Your task to perform on an android device: Search for the best selling book on Amazon. Image 0: 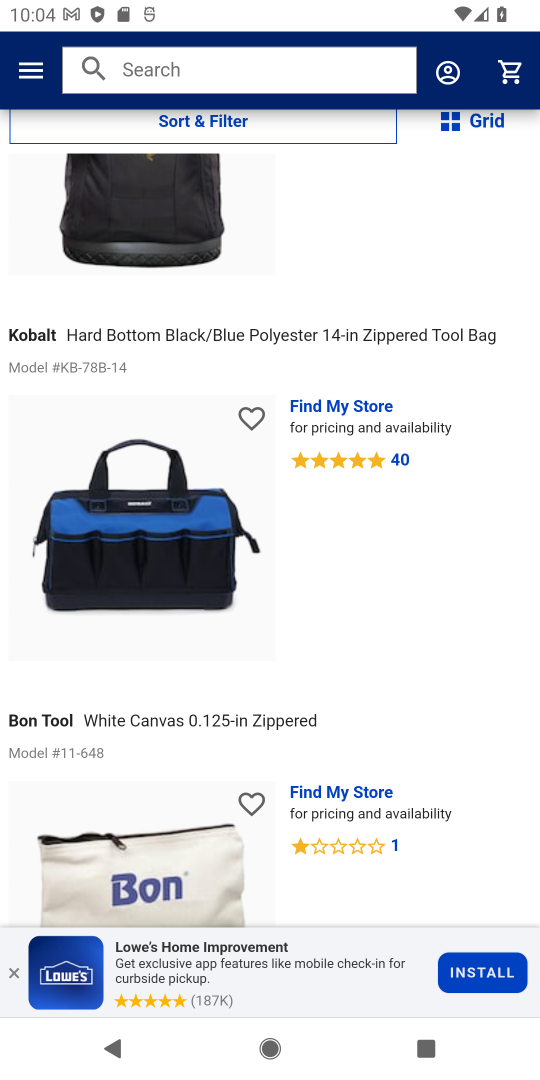
Step 0: press home button
Your task to perform on an android device: Search for the best selling book on Amazon. Image 1: 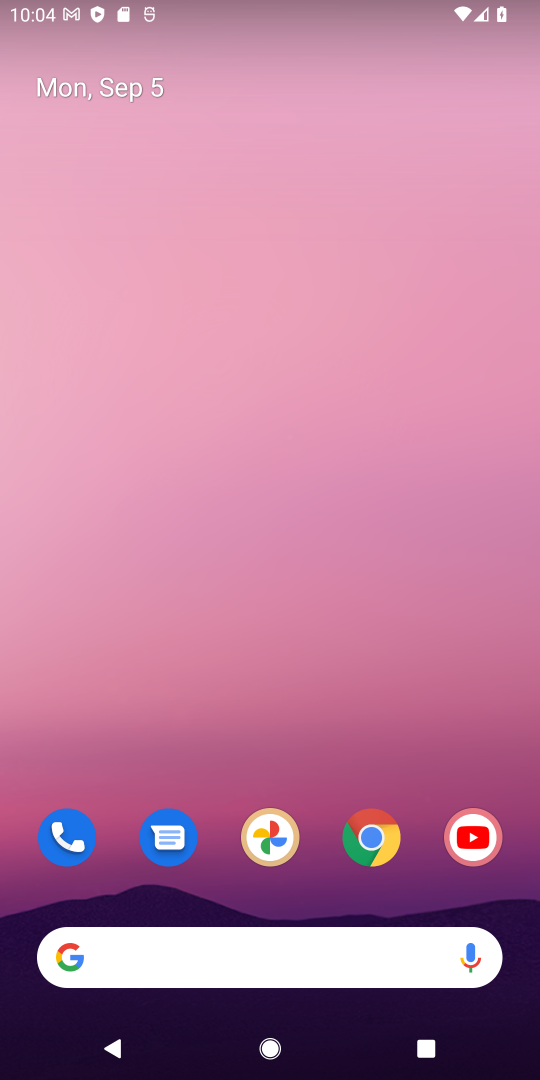
Step 1: drag from (340, 663) to (381, 69)
Your task to perform on an android device: Search for the best selling book on Amazon. Image 2: 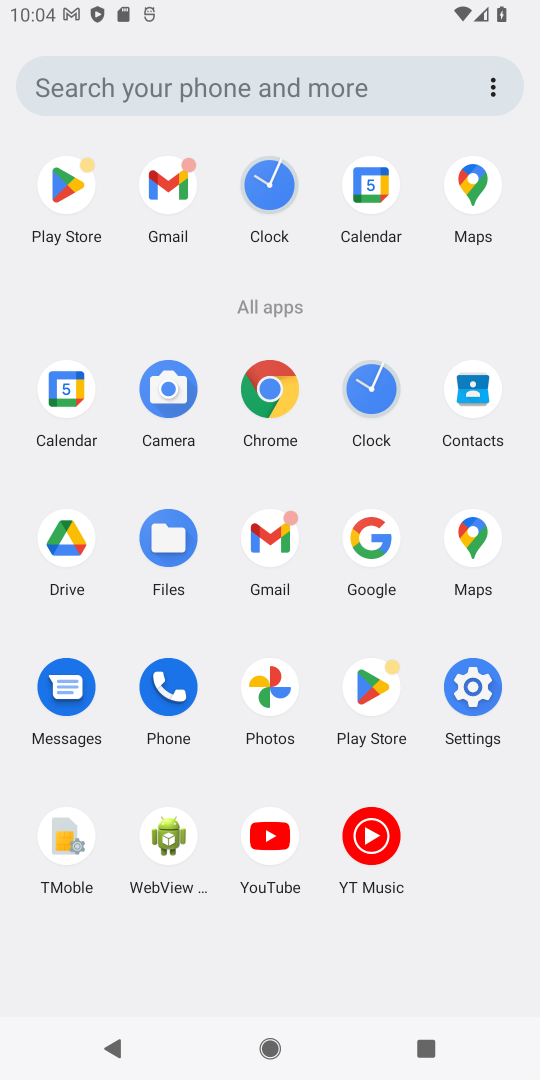
Step 2: click (268, 381)
Your task to perform on an android device: Search for the best selling book on Amazon. Image 3: 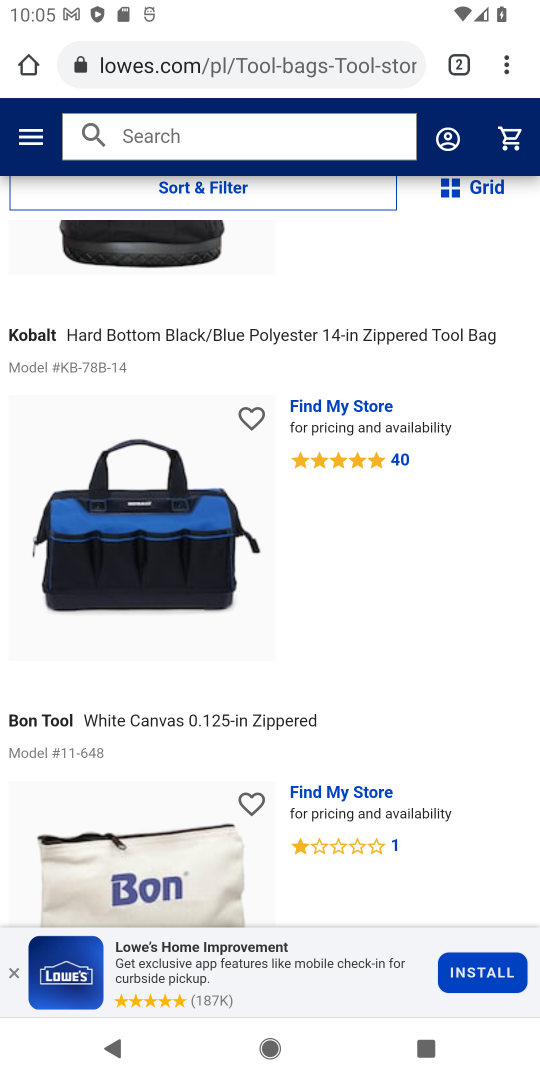
Step 3: click (454, 62)
Your task to perform on an android device: Search for the best selling book on Amazon. Image 4: 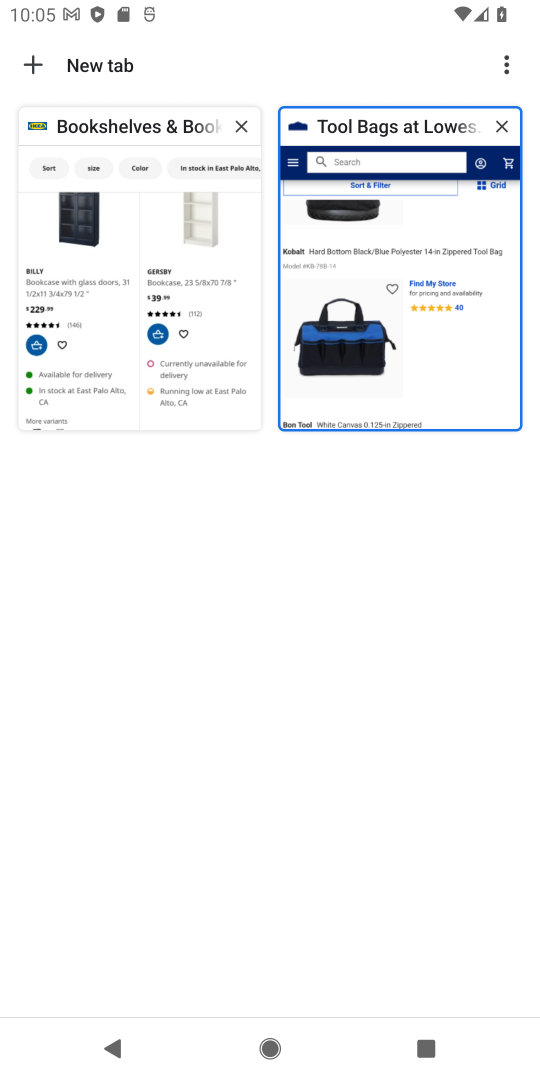
Step 4: click (502, 124)
Your task to perform on an android device: Search for the best selling book on Amazon. Image 5: 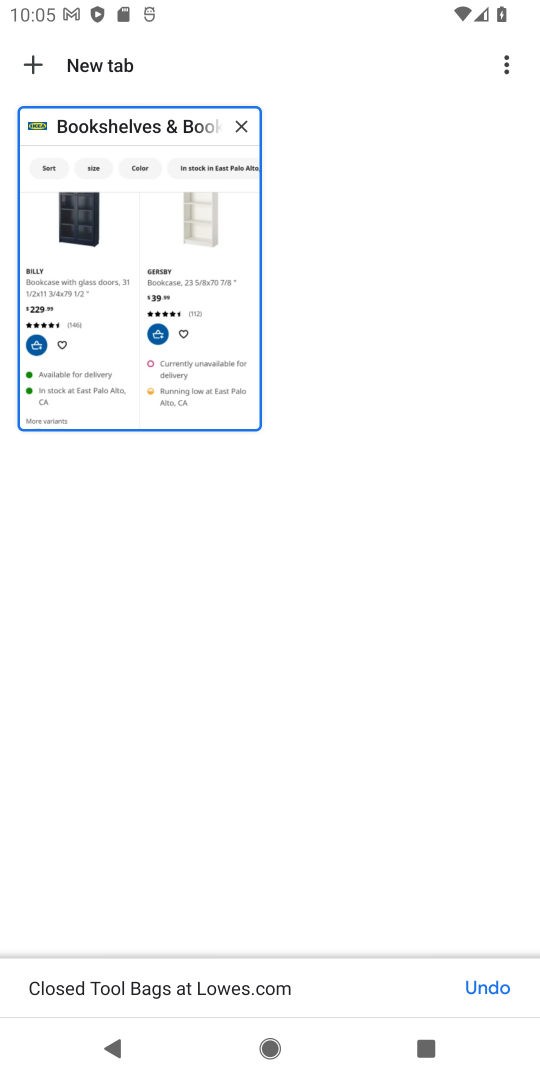
Step 5: click (31, 57)
Your task to perform on an android device: Search for the best selling book on Amazon. Image 6: 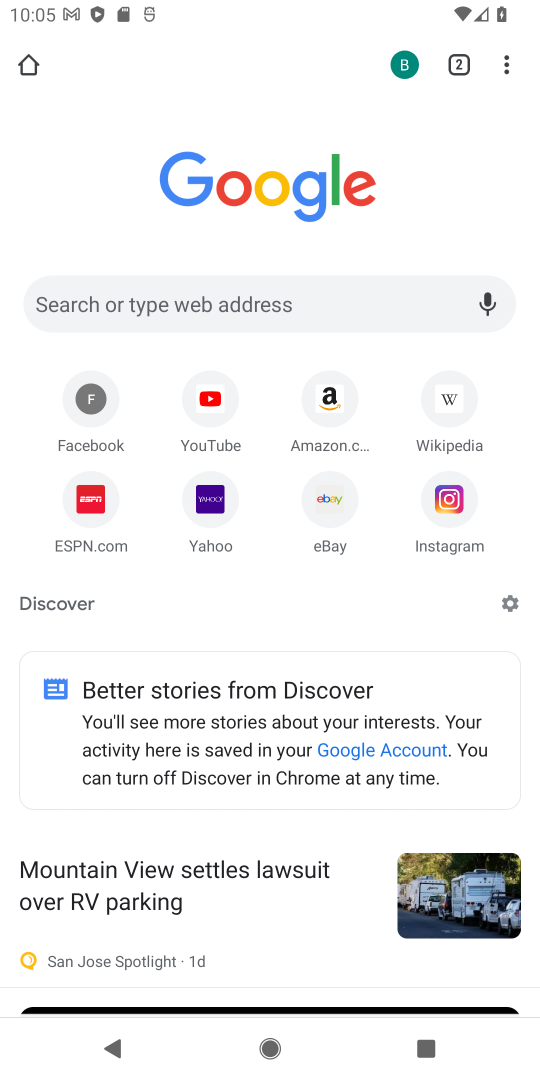
Step 6: click (197, 301)
Your task to perform on an android device: Search for the best selling book on Amazon. Image 7: 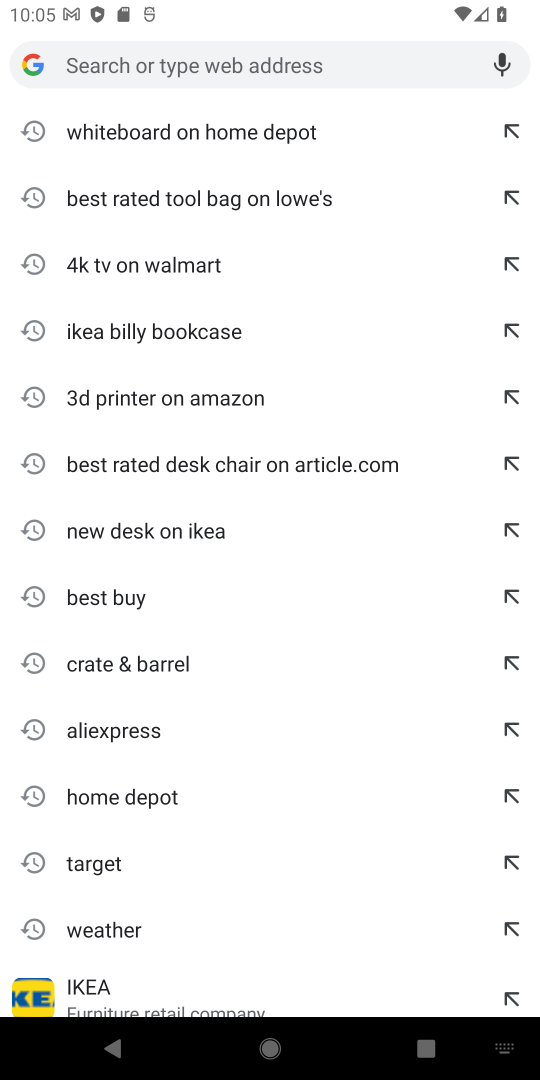
Step 7: type "best selling book on Amazon"
Your task to perform on an android device: Search for the best selling book on Amazon. Image 8: 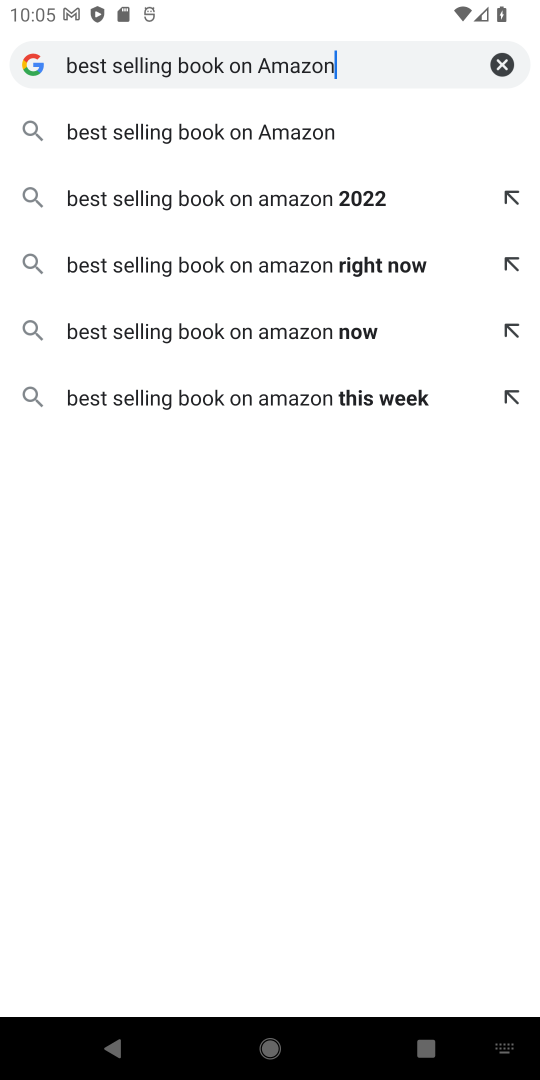
Step 8: click (333, 125)
Your task to perform on an android device: Search for the best selling book on Amazon. Image 9: 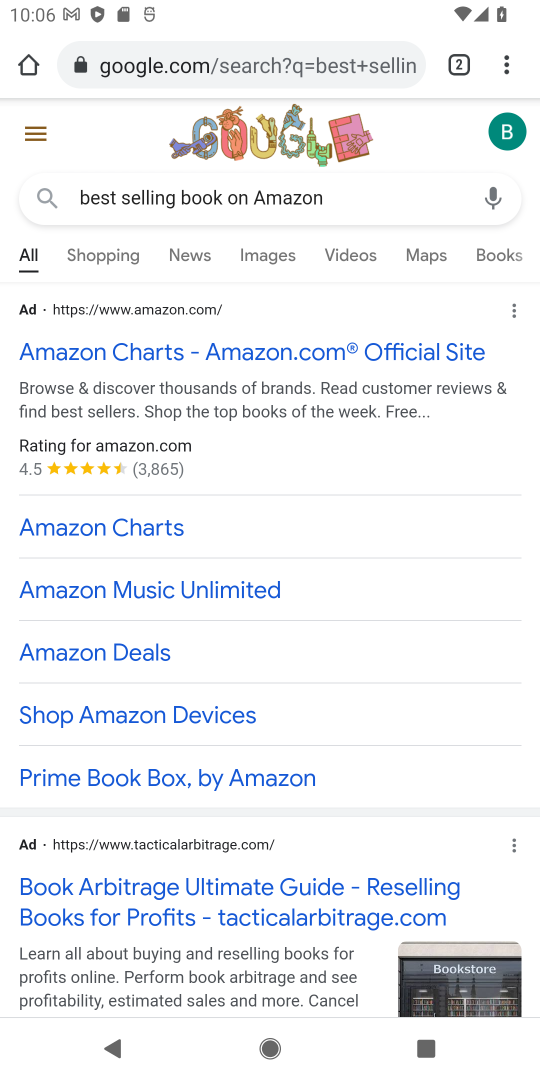
Step 9: drag from (287, 962) to (303, 408)
Your task to perform on an android device: Search for the best selling book on Amazon. Image 10: 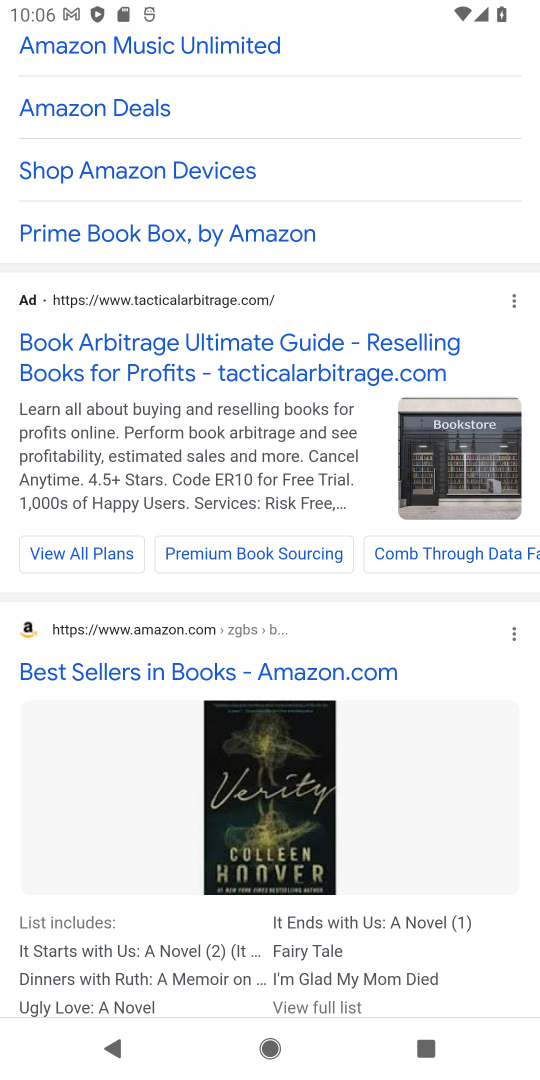
Step 10: click (189, 673)
Your task to perform on an android device: Search for the best selling book on Amazon. Image 11: 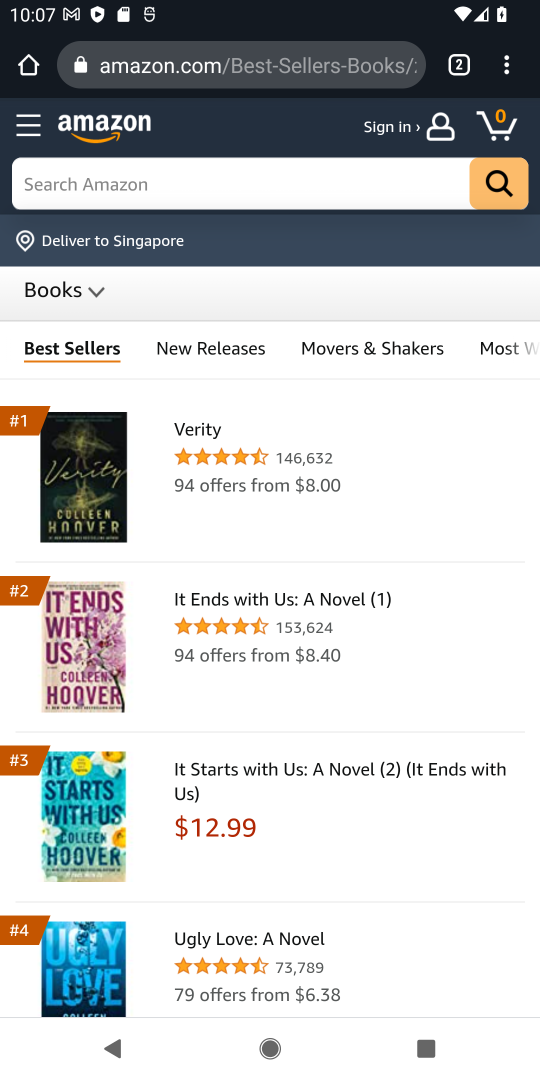
Step 11: task complete